Your task to perform on an android device: Go to internet settings Image 0: 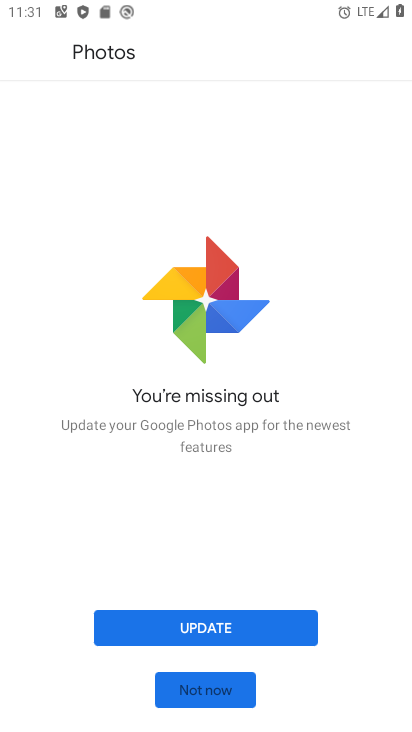
Step 0: press home button
Your task to perform on an android device: Go to internet settings Image 1: 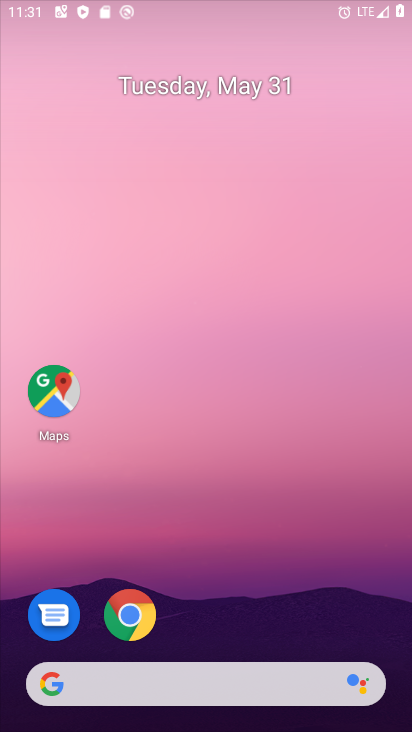
Step 1: drag from (346, 546) to (338, 47)
Your task to perform on an android device: Go to internet settings Image 2: 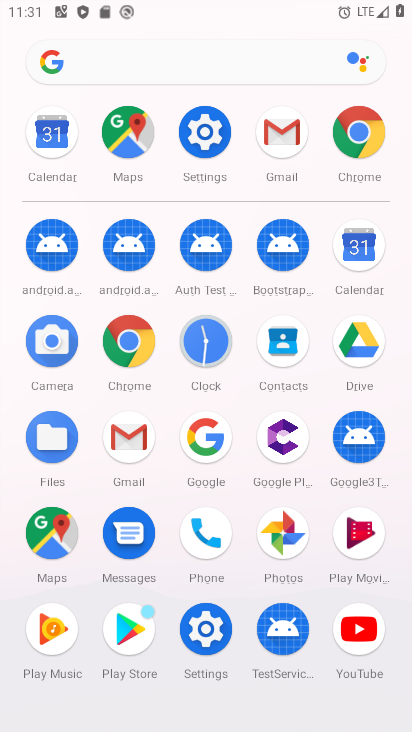
Step 2: click (187, 140)
Your task to perform on an android device: Go to internet settings Image 3: 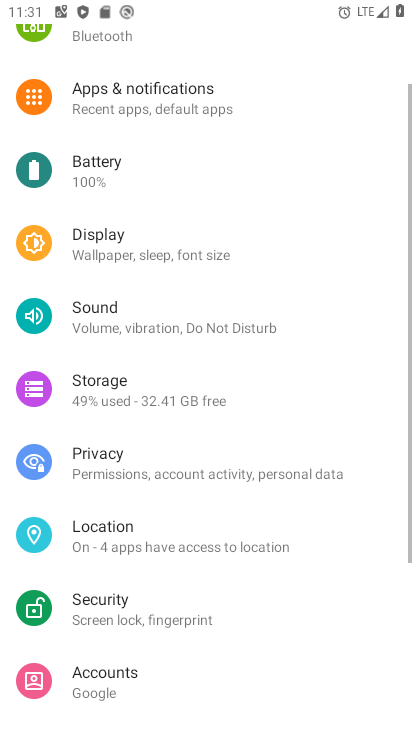
Step 3: drag from (188, 138) to (153, 551)
Your task to perform on an android device: Go to internet settings Image 4: 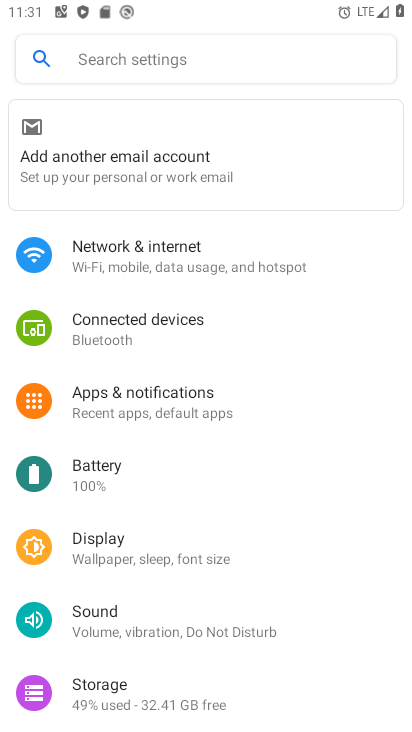
Step 4: drag from (179, 284) to (158, 456)
Your task to perform on an android device: Go to internet settings Image 5: 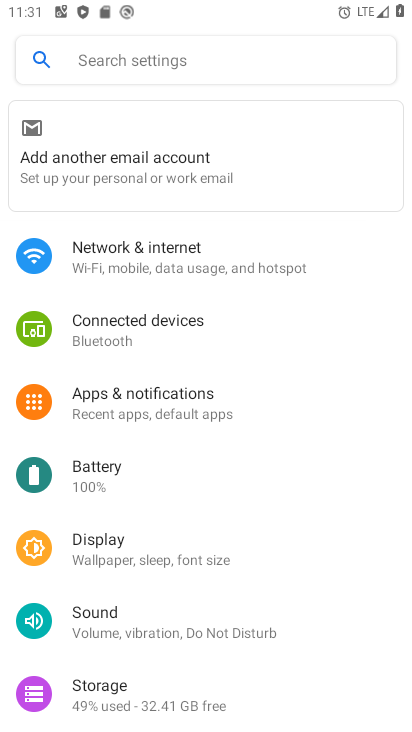
Step 5: click (124, 265)
Your task to perform on an android device: Go to internet settings Image 6: 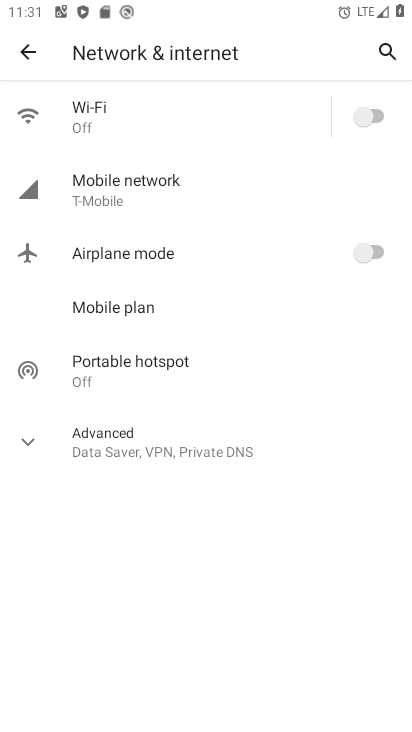
Step 6: task complete